Your task to perform on an android device: change text size in settings app Image 0: 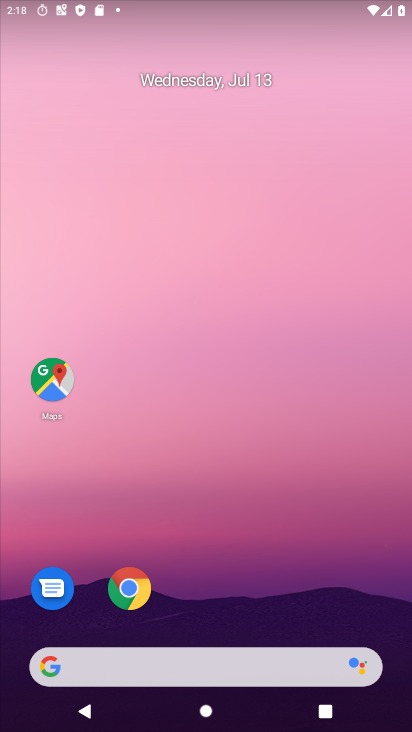
Step 0: drag from (201, 630) to (254, 265)
Your task to perform on an android device: change text size in settings app Image 1: 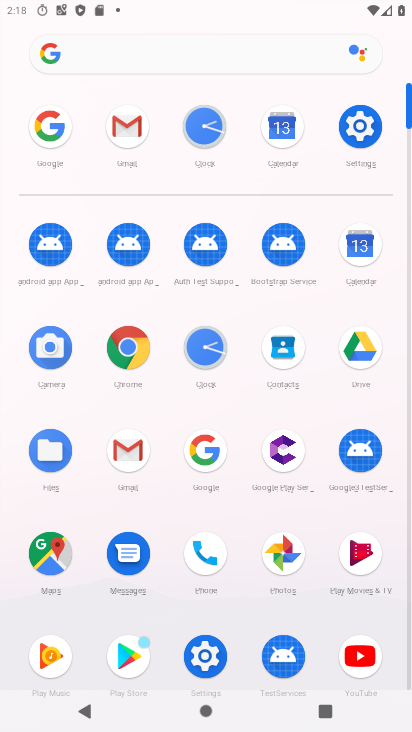
Step 1: click (353, 129)
Your task to perform on an android device: change text size in settings app Image 2: 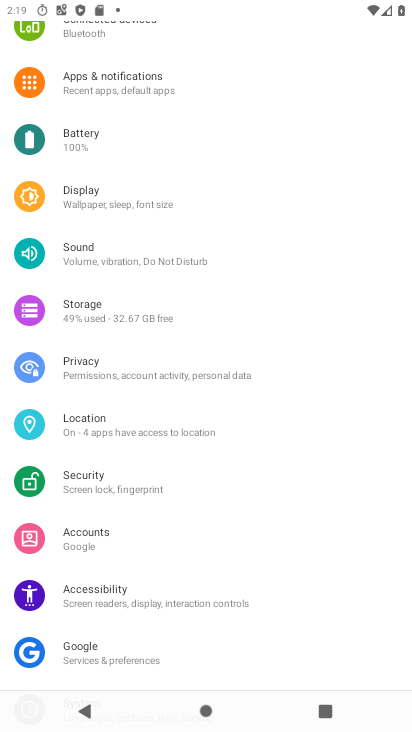
Step 2: click (79, 594)
Your task to perform on an android device: change text size in settings app Image 3: 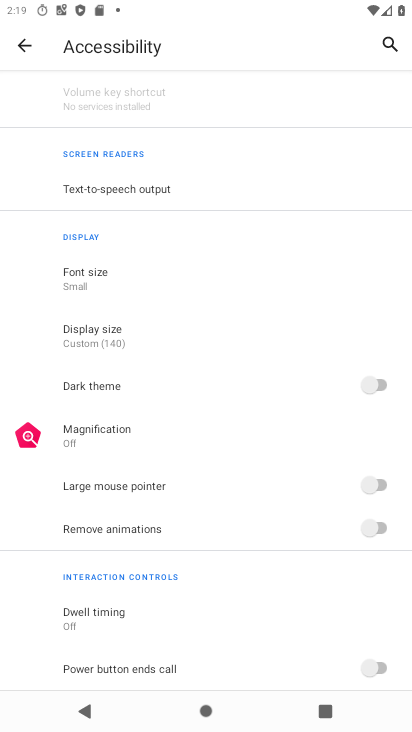
Step 3: click (90, 276)
Your task to perform on an android device: change text size in settings app Image 4: 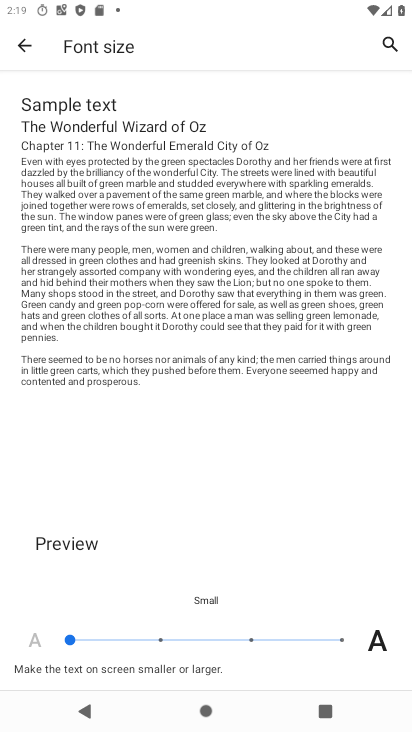
Step 4: click (252, 639)
Your task to perform on an android device: change text size in settings app Image 5: 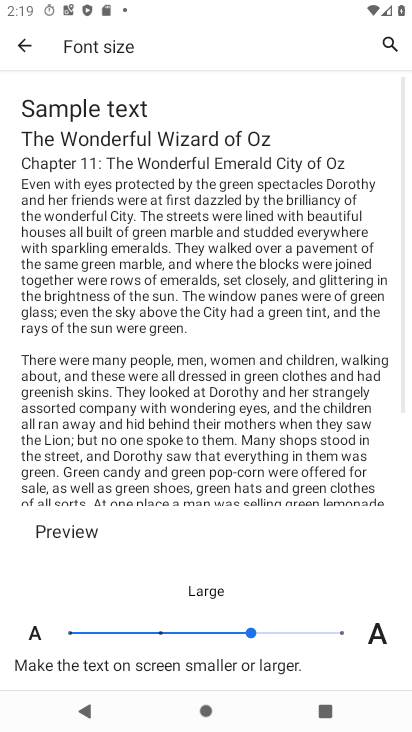
Step 5: task complete